Your task to perform on an android device: Open Youtube and go to the subscriptions tab Image 0: 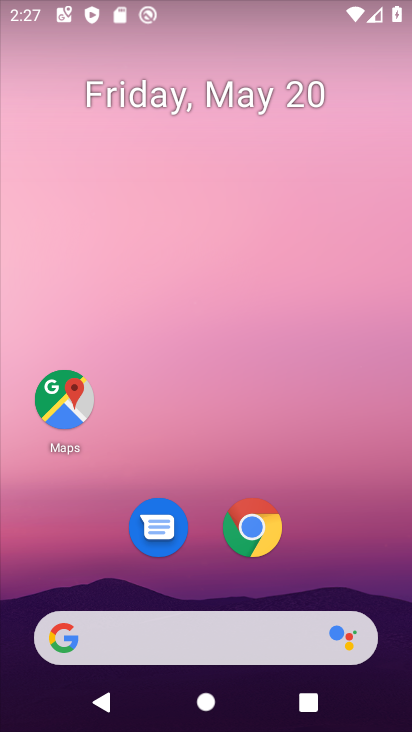
Step 0: drag from (247, 703) to (340, 137)
Your task to perform on an android device: Open Youtube and go to the subscriptions tab Image 1: 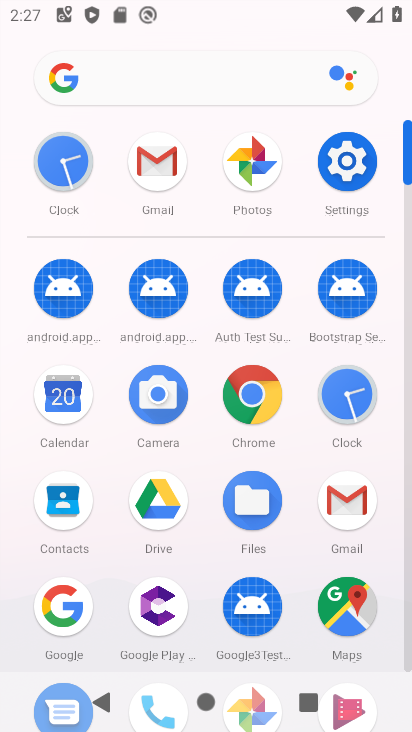
Step 1: drag from (307, 577) to (286, 33)
Your task to perform on an android device: Open Youtube and go to the subscriptions tab Image 2: 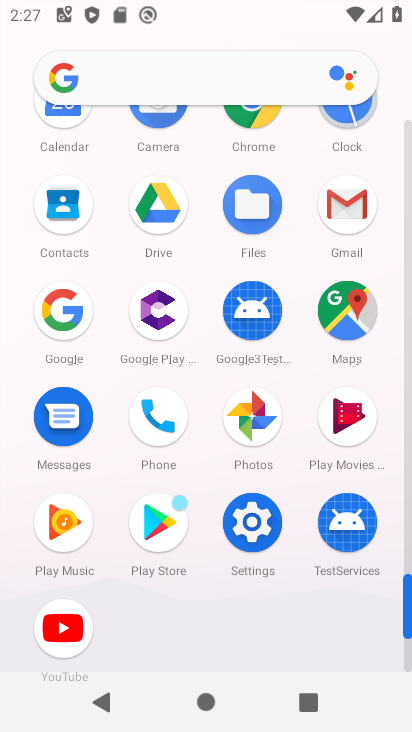
Step 2: click (56, 634)
Your task to perform on an android device: Open Youtube and go to the subscriptions tab Image 3: 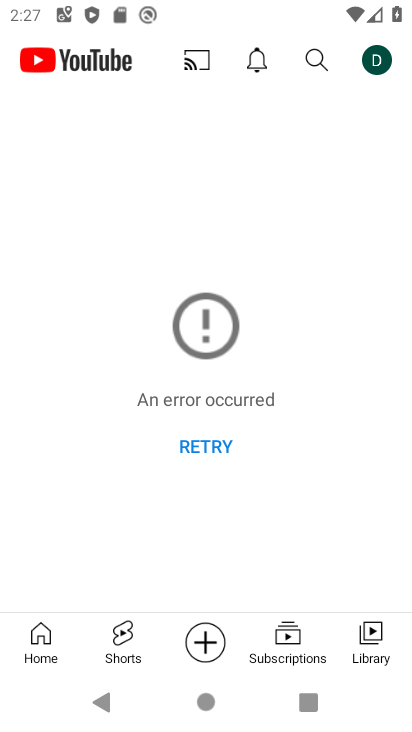
Step 3: click (280, 646)
Your task to perform on an android device: Open Youtube and go to the subscriptions tab Image 4: 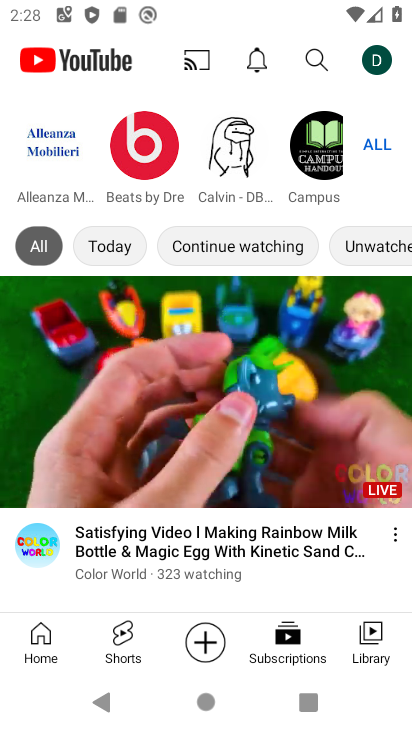
Step 4: task complete